Your task to perform on an android device: check storage Image 0: 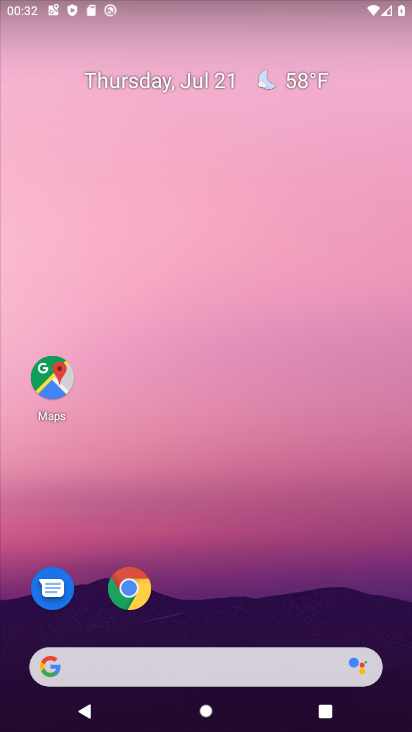
Step 0: drag from (188, 551) to (196, 60)
Your task to perform on an android device: check storage Image 1: 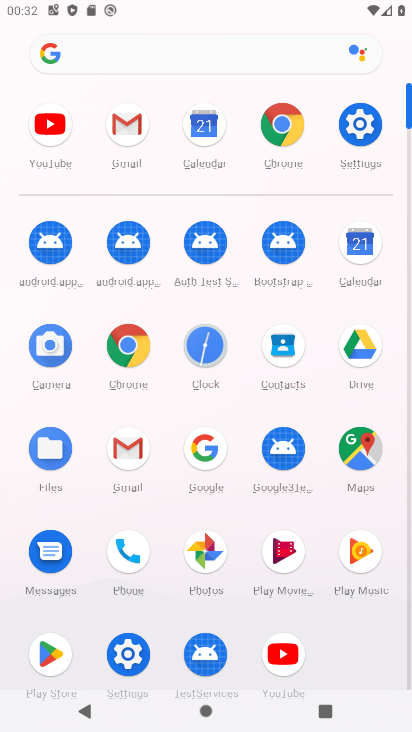
Step 1: click (125, 641)
Your task to perform on an android device: check storage Image 2: 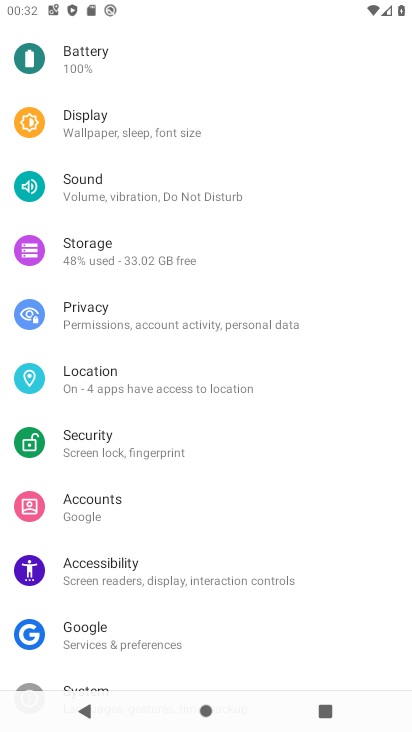
Step 2: drag from (115, 628) to (130, 331)
Your task to perform on an android device: check storage Image 3: 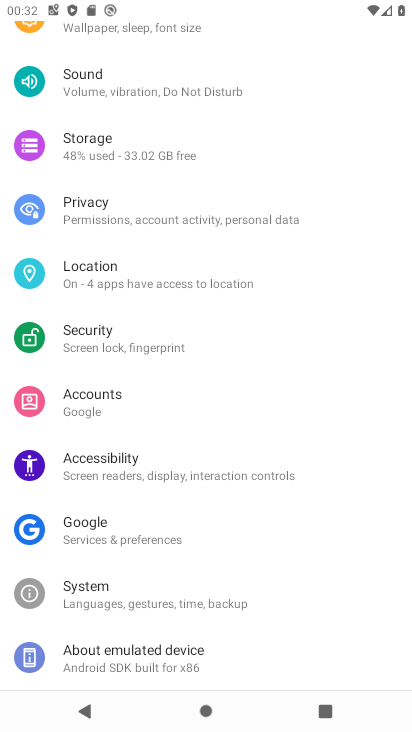
Step 3: drag from (112, 214) to (112, 344)
Your task to perform on an android device: check storage Image 4: 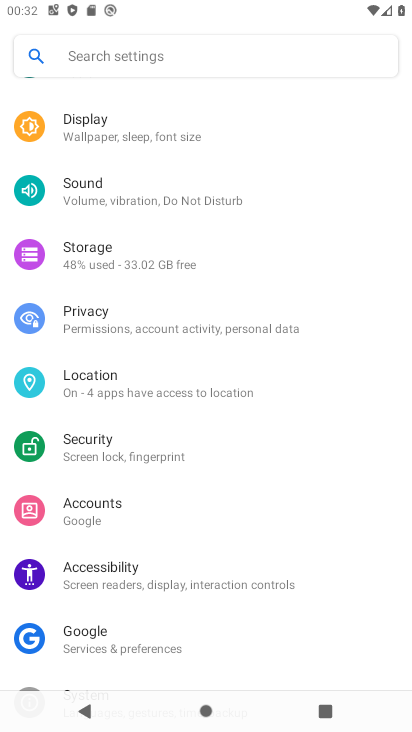
Step 4: click (112, 250)
Your task to perform on an android device: check storage Image 5: 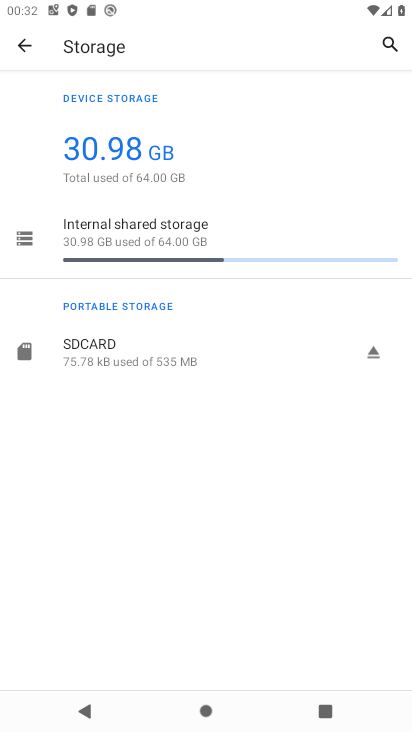
Step 5: click (114, 256)
Your task to perform on an android device: check storage Image 6: 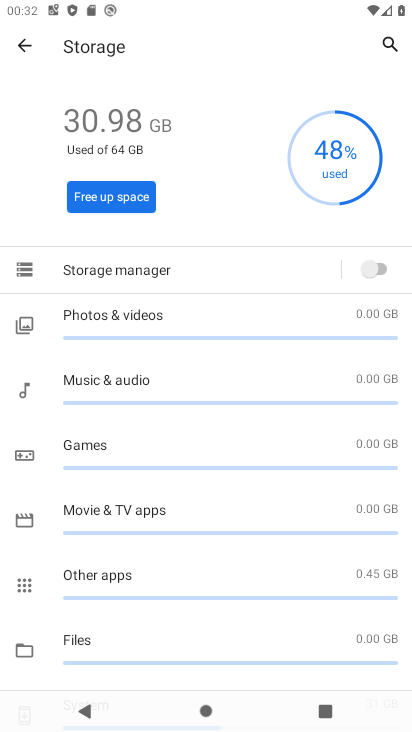
Step 6: task complete